Your task to perform on an android device: change your default location settings in chrome Image 0: 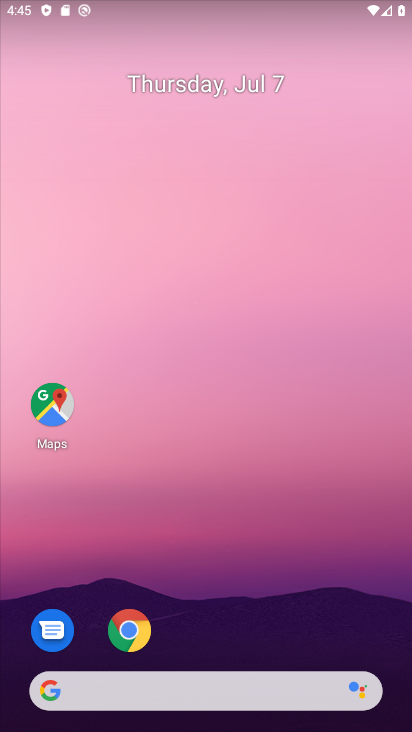
Step 0: drag from (242, 610) to (212, 189)
Your task to perform on an android device: change your default location settings in chrome Image 1: 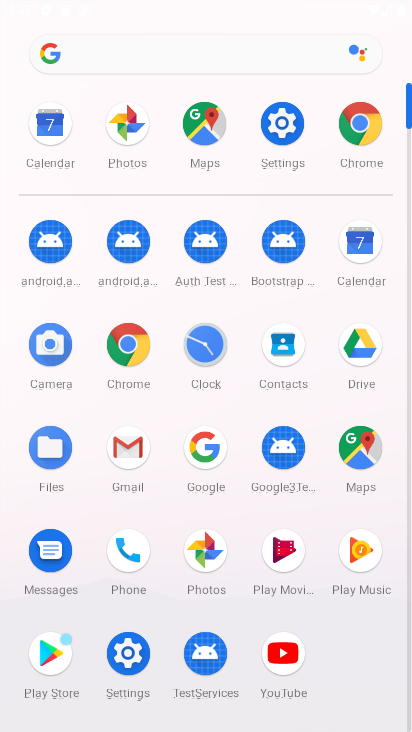
Step 1: click (133, 356)
Your task to perform on an android device: change your default location settings in chrome Image 2: 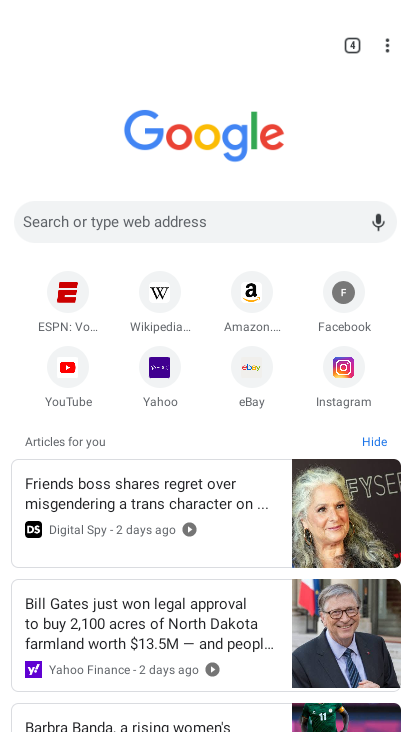
Step 2: click (382, 54)
Your task to perform on an android device: change your default location settings in chrome Image 3: 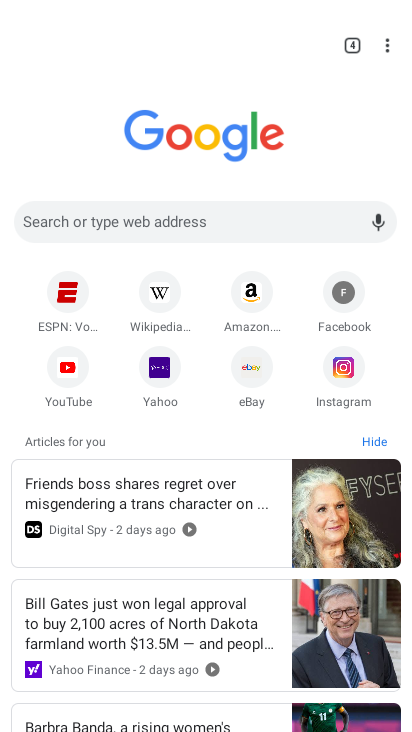
Step 3: drag from (387, 49) to (217, 376)
Your task to perform on an android device: change your default location settings in chrome Image 4: 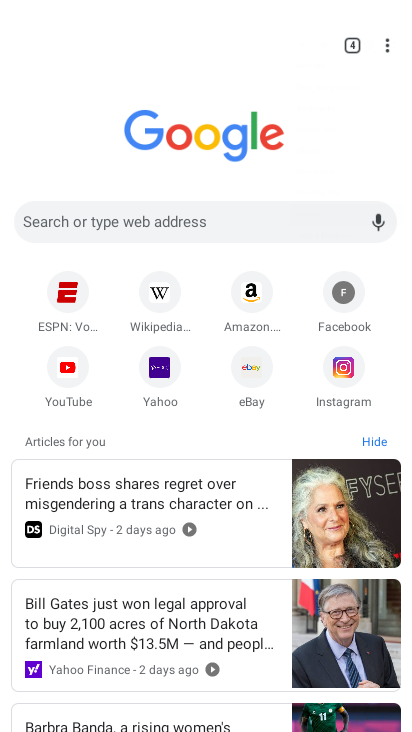
Step 4: click (226, 375)
Your task to perform on an android device: change your default location settings in chrome Image 5: 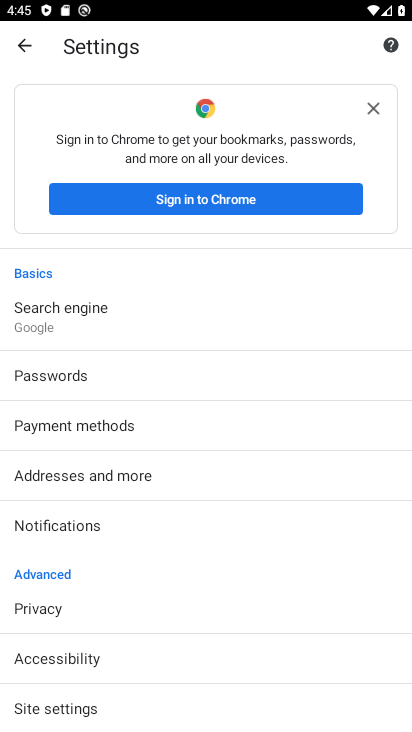
Step 5: click (29, 329)
Your task to perform on an android device: change your default location settings in chrome Image 6: 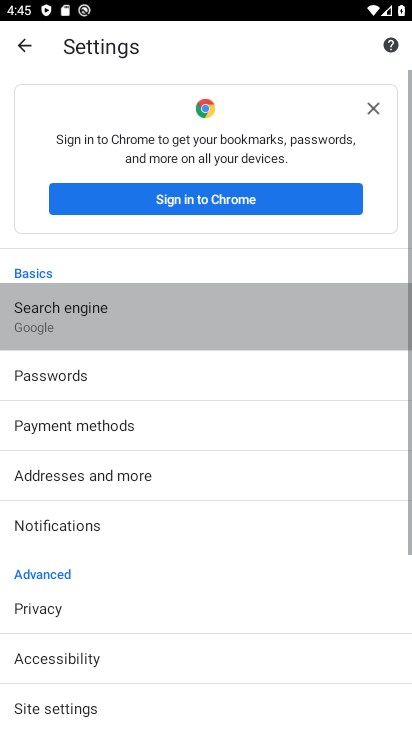
Step 6: click (29, 329)
Your task to perform on an android device: change your default location settings in chrome Image 7: 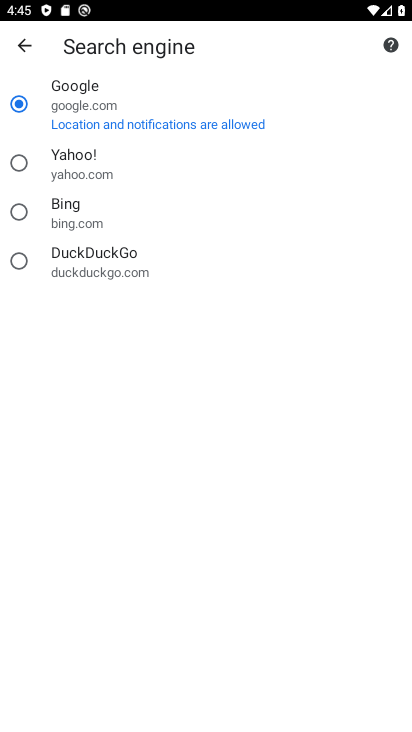
Step 7: click (31, 155)
Your task to perform on an android device: change your default location settings in chrome Image 8: 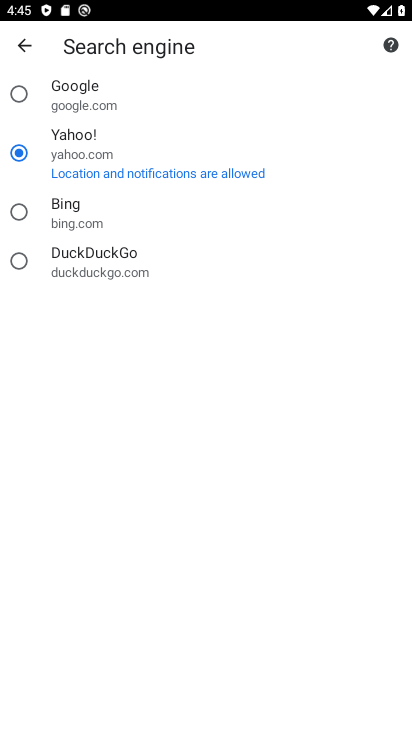
Step 8: task complete